Your task to perform on an android device: Open Wikipedia Image 0: 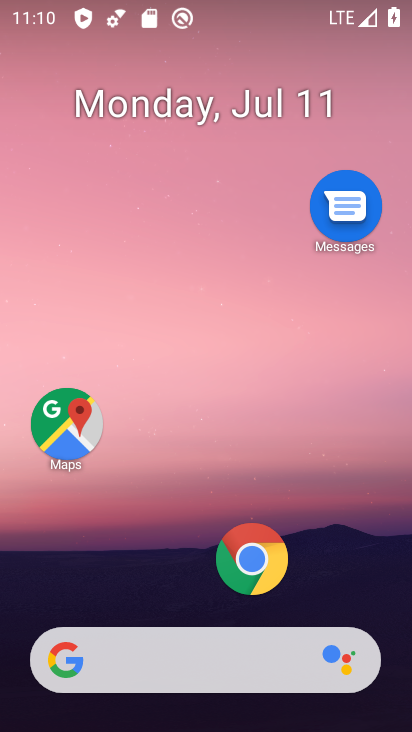
Step 0: drag from (343, 518) to (370, 132)
Your task to perform on an android device: Open Wikipedia Image 1: 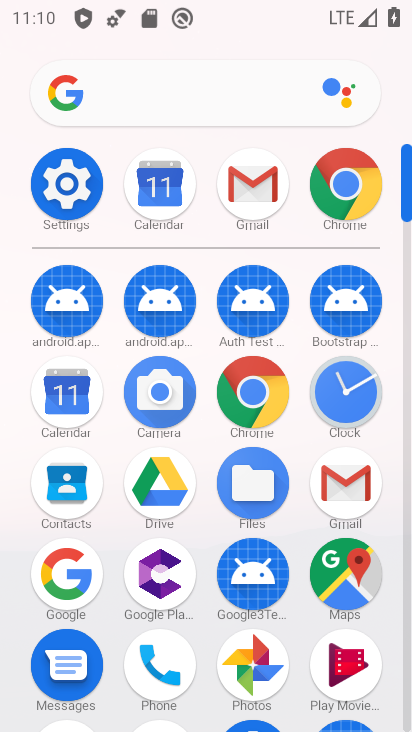
Step 1: click (261, 396)
Your task to perform on an android device: Open Wikipedia Image 2: 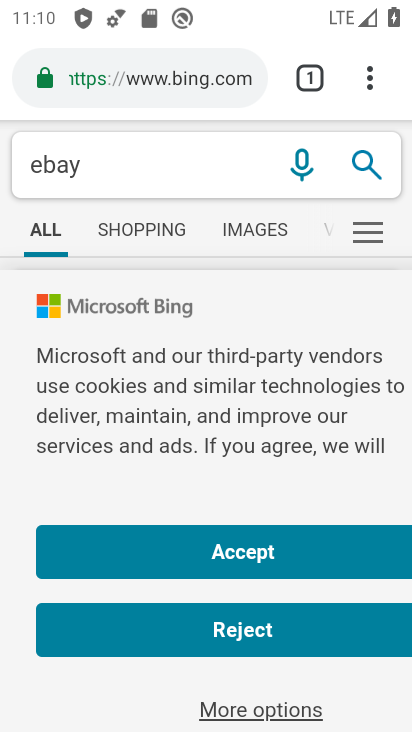
Step 2: click (194, 84)
Your task to perform on an android device: Open Wikipedia Image 3: 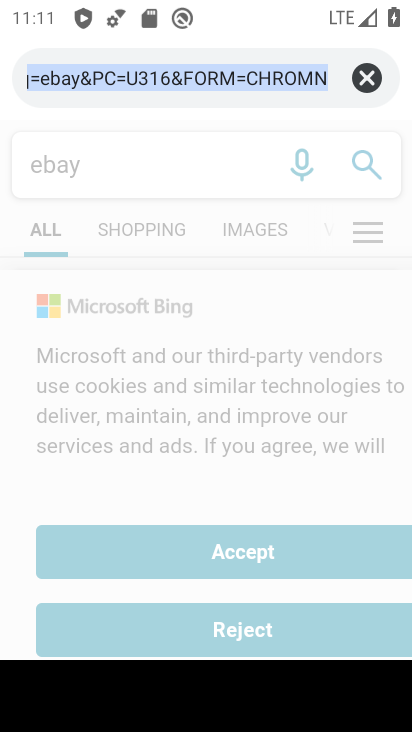
Step 3: type "wikipedia"
Your task to perform on an android device: Open Wikipedia Image 4: 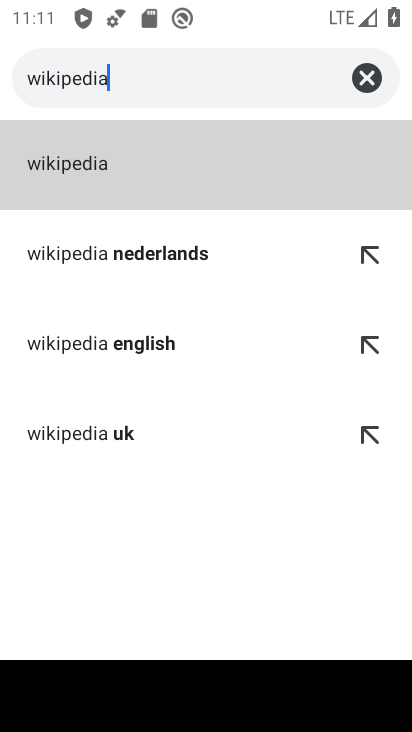
Step 4: click (356, 162)
Your task to perform on an android device: Open Wikipedia Image 5: 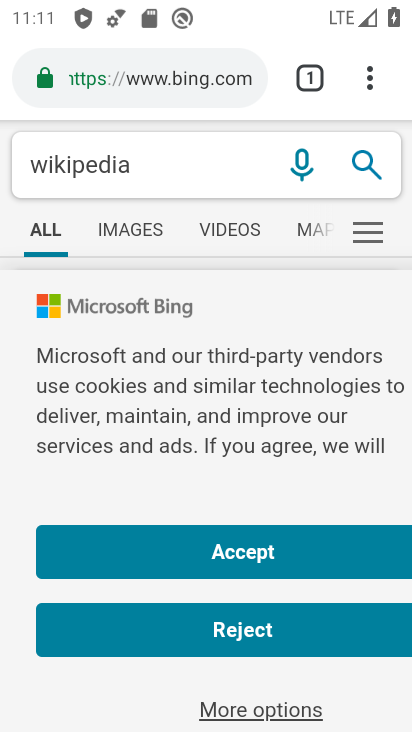
Step 5: task complete